Your task to perform on an android device: Search for Mexican restaurants on Maps Image 0: 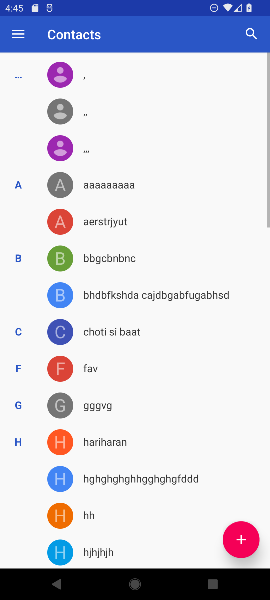
Step 0: press home button
Your task to perform on an android device: Search for Mexican restaurants on Maps Image 1: 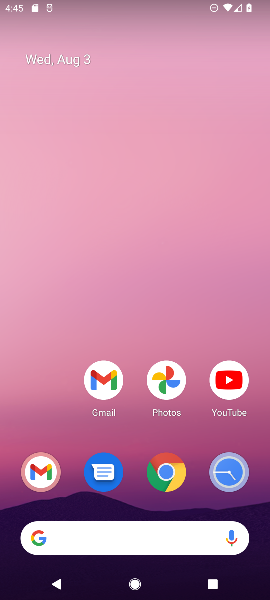
Step 1: drag from (245, 501) to (93, 24)
Your task to perform on an android device: Search for Mexican restaurants on Maps Image 2: 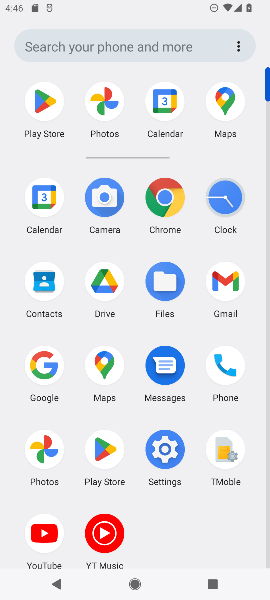
Step 2: click (96, 360)
Your task to perform on an android device: Search for Mexican restaurants on Maps Image 3: 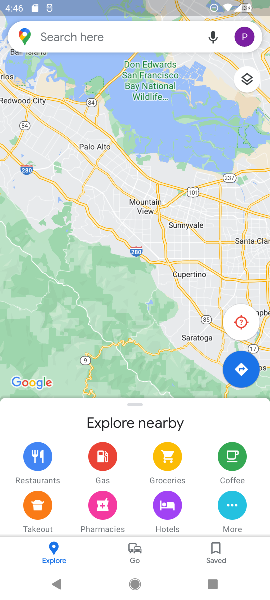
Step 3: click (107, 35)
Your task to perform on an android device: Search for Mexican restaurants on Maps Image 4: 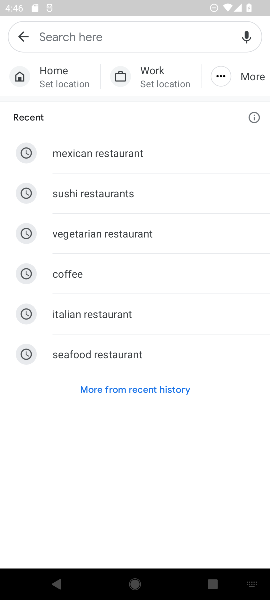
Step 4: click (84, 156)
Your task to perform on an android device: Search for Mexican restaurants on Maps Image 5: 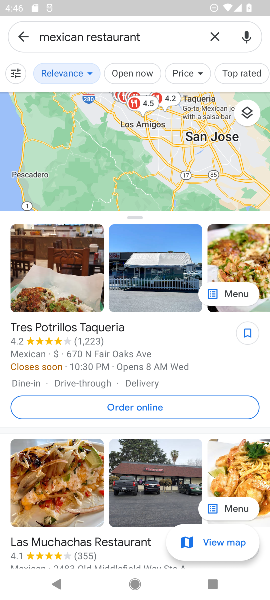
Step 5: task complete